Your task to perform on an android device: Open CNN.com Image 0: 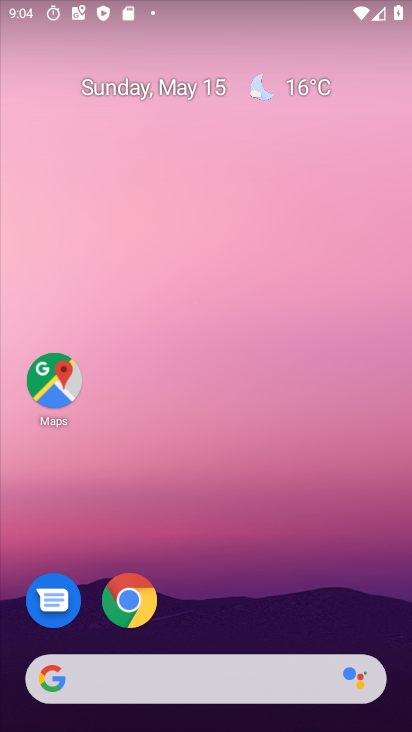
Step 0: drag from (245, 590) to (277, 42)
Your task to perform on an android device: Open CNN.com Image 1: 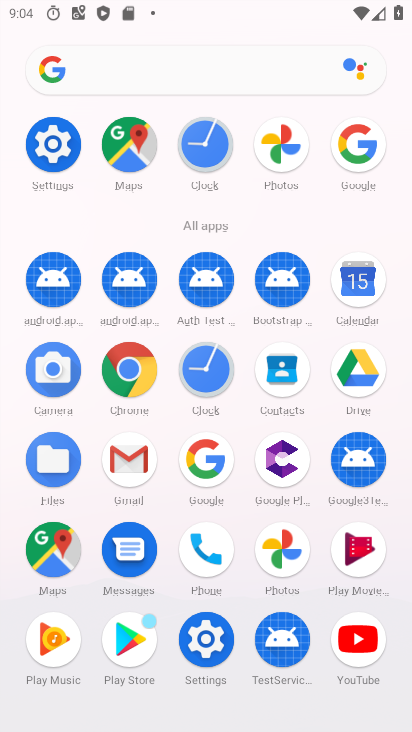
Step 1: click (355, 148)
Your task to perform on an android device: Open CNN.com Image 2: 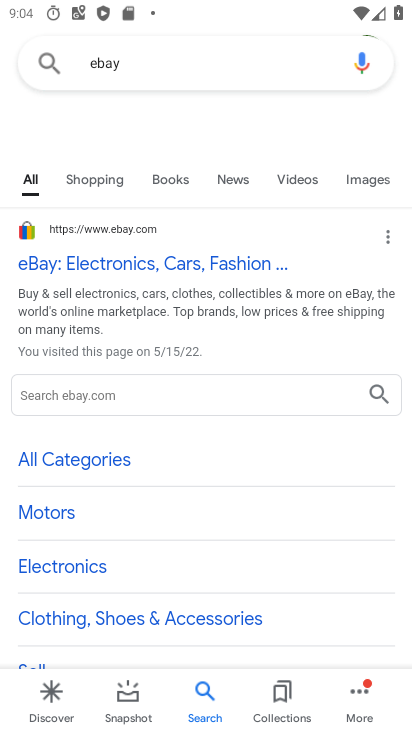
Step 2: click (203, 47)
Your task to perform on an android device: Open CNN.com Image 3: 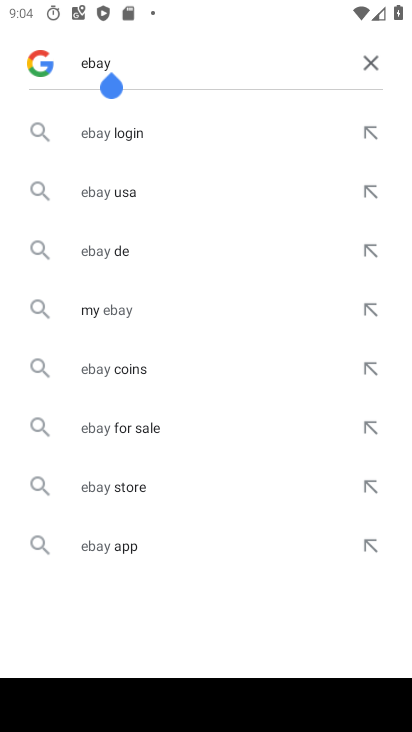
Step 3: click (367, 60)
Your task to perform on an android device: Open CNN.com Image 4: 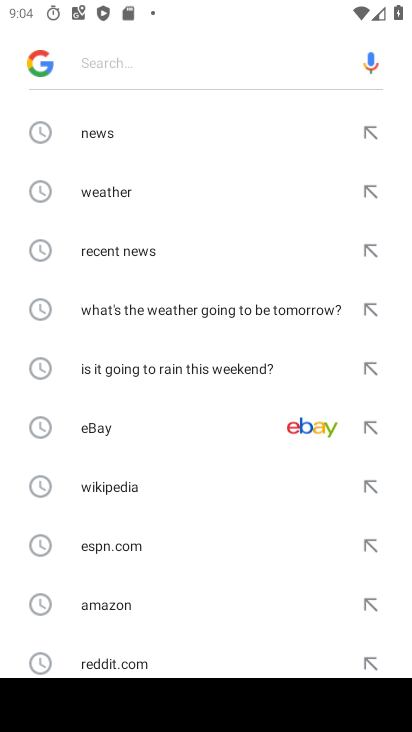
Step 4: drag from (170, 439) to (174, 232)
Your task to perform on an android device: Open CNN.com Image 5: 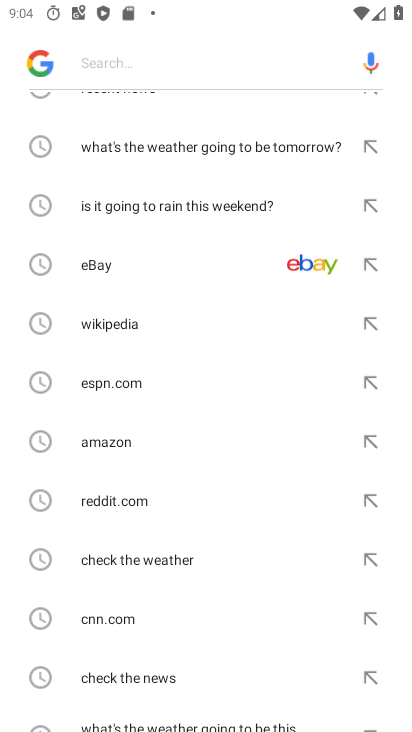
Step 5: drag from (191, 618) to (211, 232)
Your task to perform on an android device: Open CNN.com Image 6: 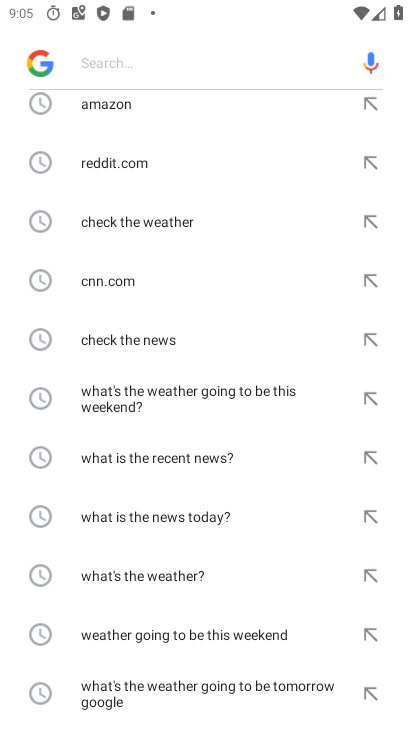
Step 6: click (131, 282)
Your task to perform on an android device: Open CNN.com Image 7: 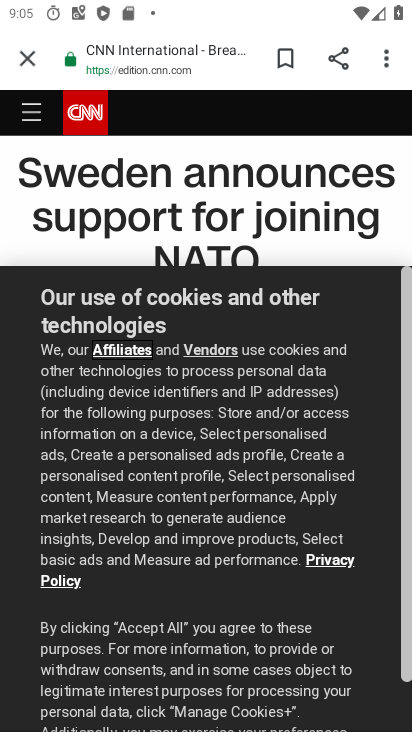
Step 7: task complete